Your task to perform on an android device: toggle show notifications on the lock screen Image 0: 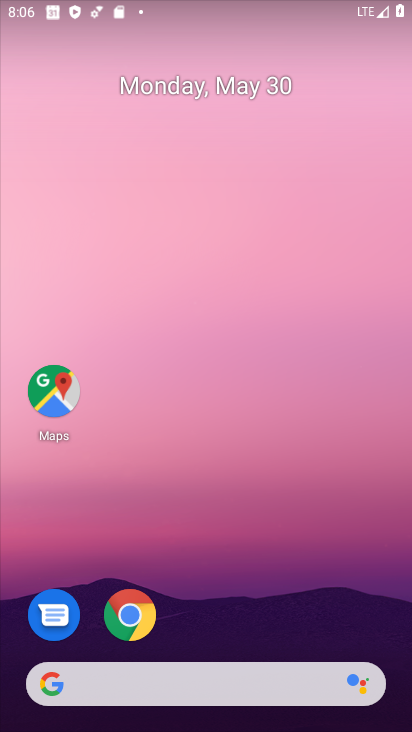
Step 0: drag from (129, 731) to (159, 128)
Your task to perform on an android device: toggle show notifications on the lock screen Image 1: 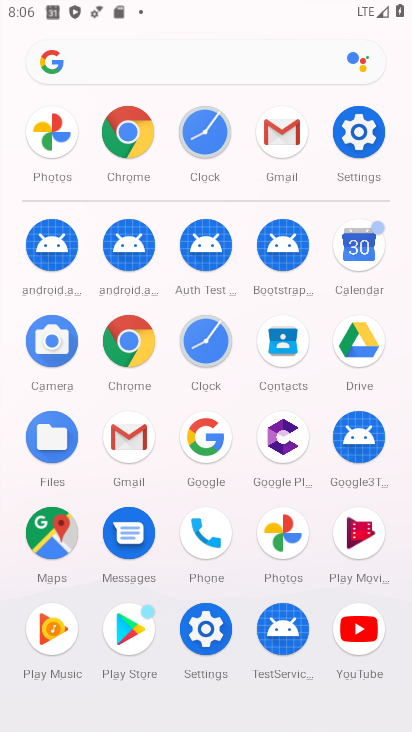
Step 1: click (350, 127)
Your task to perform on an android device: toggle show notifications on the lock screen Image 2: 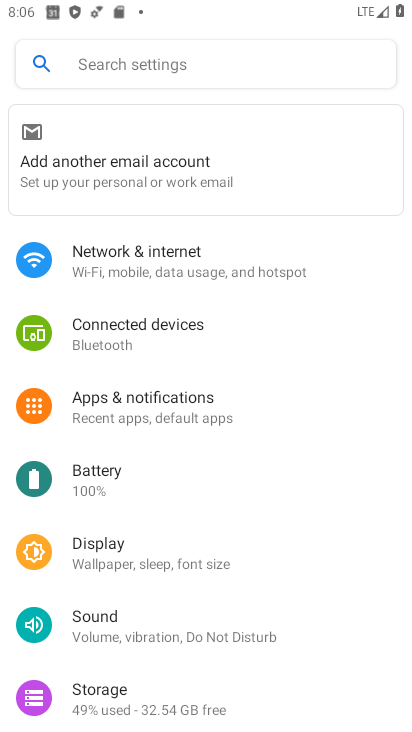
Step 2: click (212, 419)
Your task to perform on an android device: toggle show notifications on the lock screen Image 3: 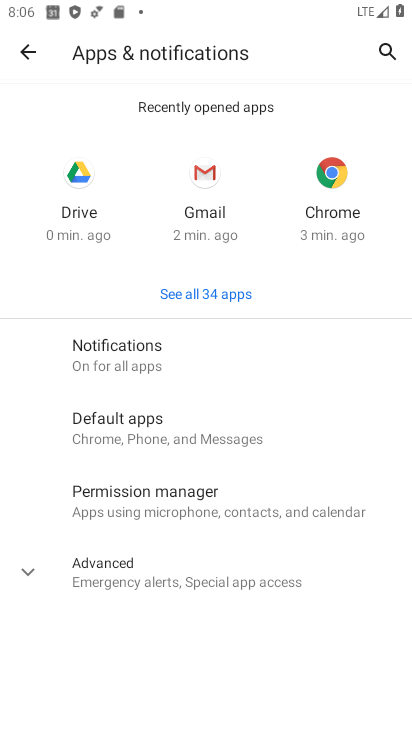
Step 3: click (181, 384)
Your task to perform on an android device: toggle show notifications on the lock screen Image 4: 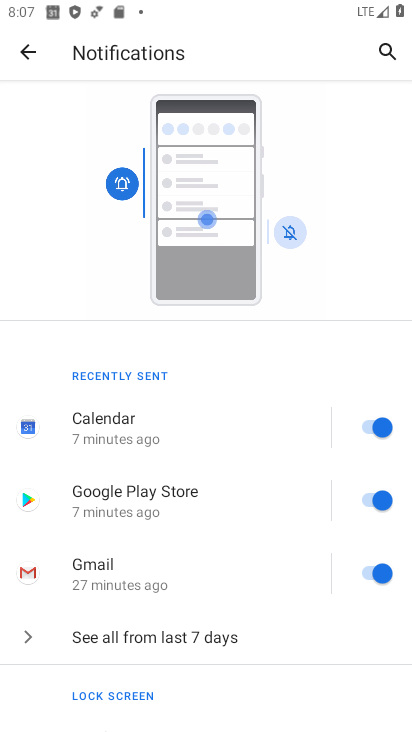
Step 4: drag from (183, 684) to (147, 254)
Your task to perform on an android device: toggle show notifications on the lock screen Image 5: 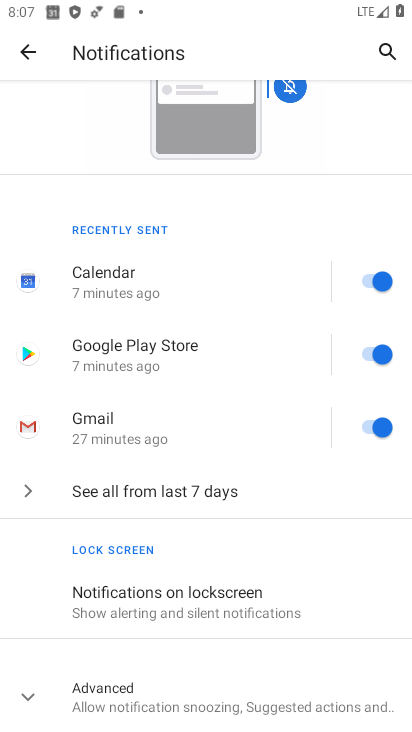
Step 5: click (128, 696)
Your task to perform on an android device: toggle show notifications on the lock screen Image 6: 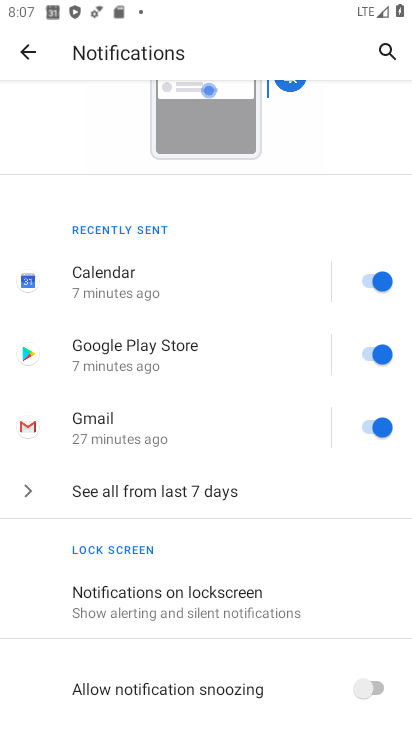
Step 6: click (143, 603)
Your task to perform on an android device: toggle show notifications on the lock screen Image 7: 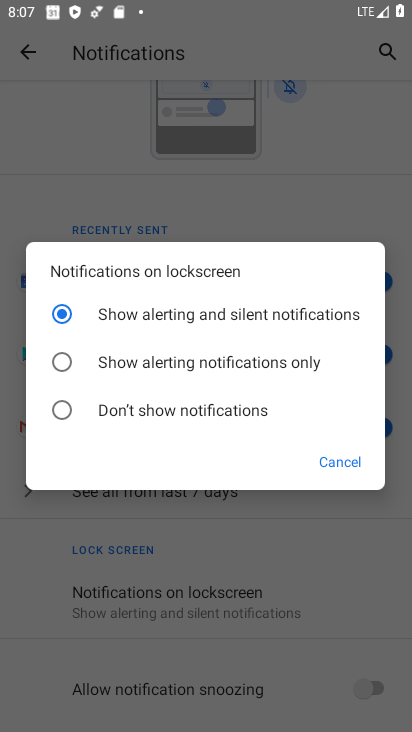
Step 7: task complete